Your task to perform on an android device: Go to notification settings Image 0: 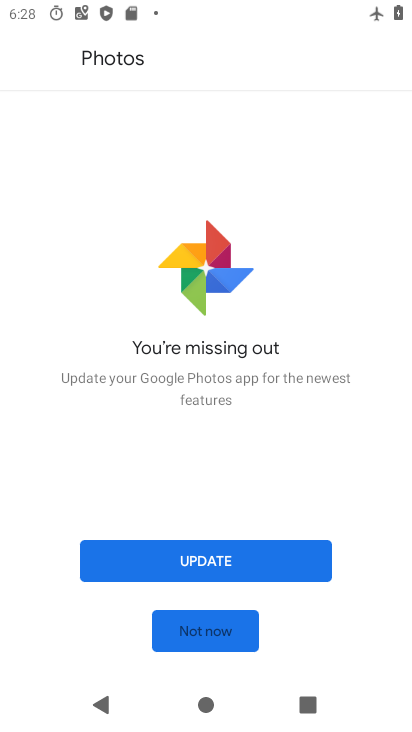
Step 0: click (278, 248)
Your task to perform on an android device: Go to notification settings Image 1: 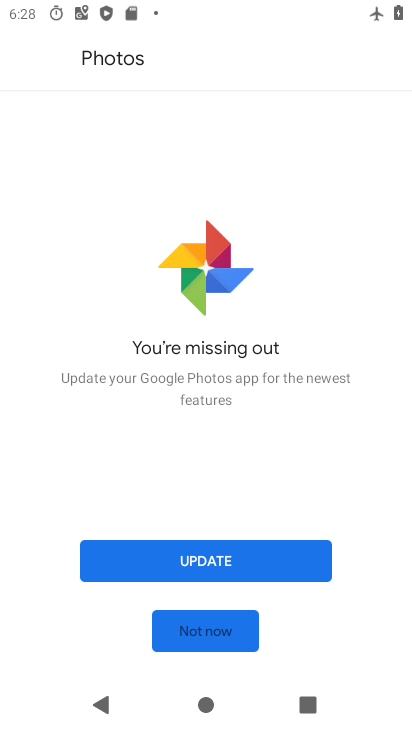
Step 1: press home button
Your task to perform on an android device: Go to notification settings Image 2: 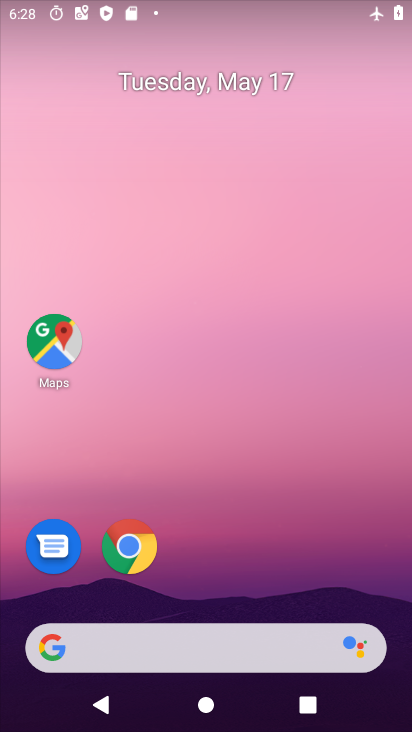
Step 2: click (227, 193)
Your task to perform on an android device: Go to notification settings Image 3: 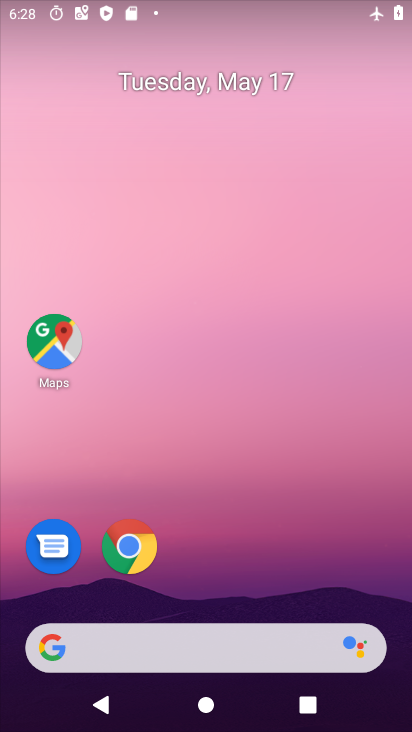
Step 3: click (214, 144)
Your task to perform on an android device: Go to notification settings Image 4: 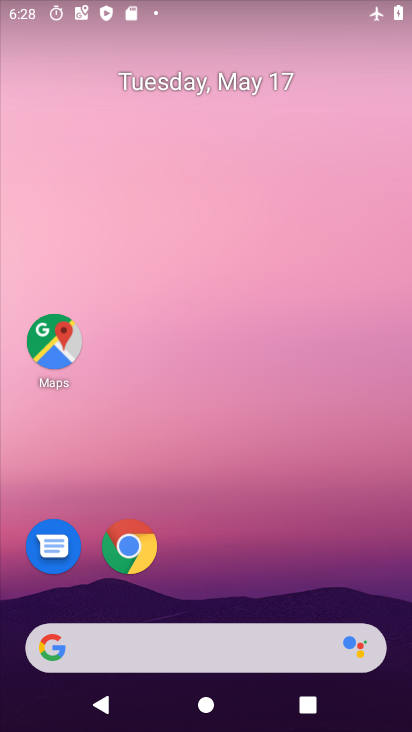
Step 4: drag from (253, 403) to (249, 104)
Your task to perform on an android device: Go to notification settings Image 5: 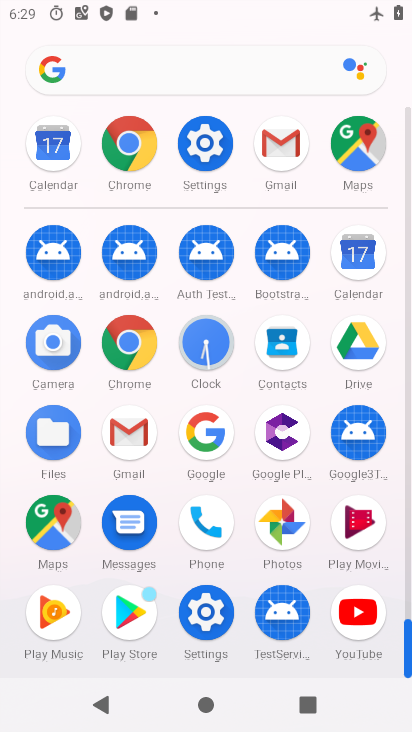
Step 5: click (202, 152)
Your task to perform on an android device: Go to notification settings Image 6: 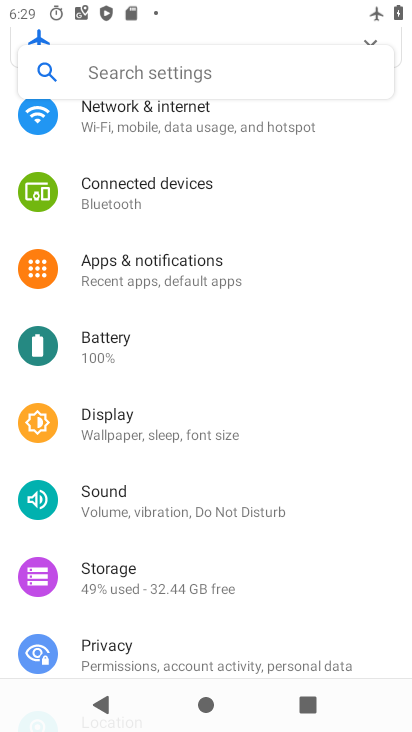
Step 6: click (152, 283)
Your task to perform on an android device: Go to notification settings Image 7: 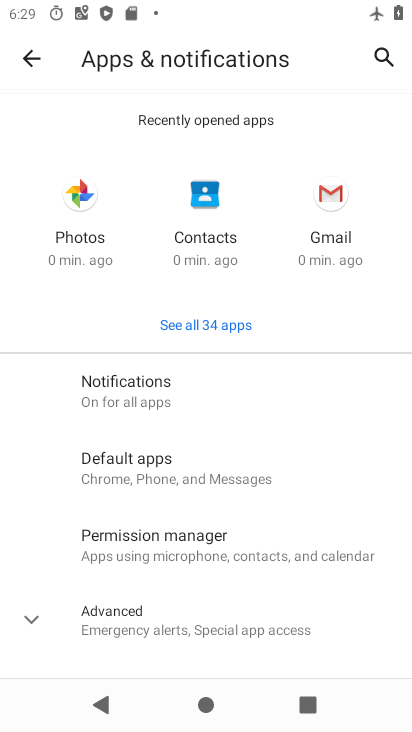
Step 7: task complete